Your task to perform on an android device: turn on location history Image 0: 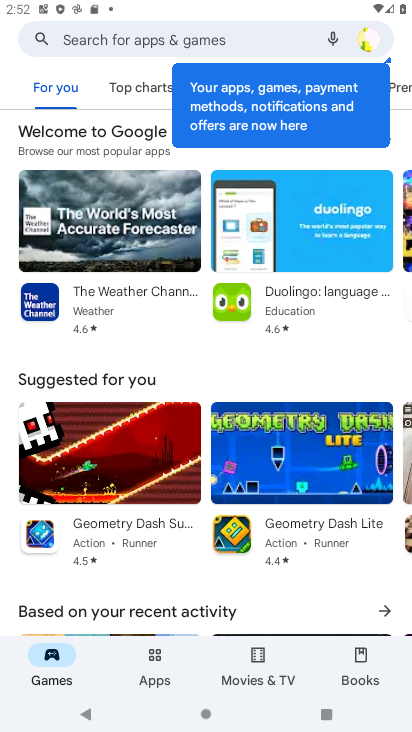
Step 0: press home button
Your task to perform on an android device: turn on location history Image 1: 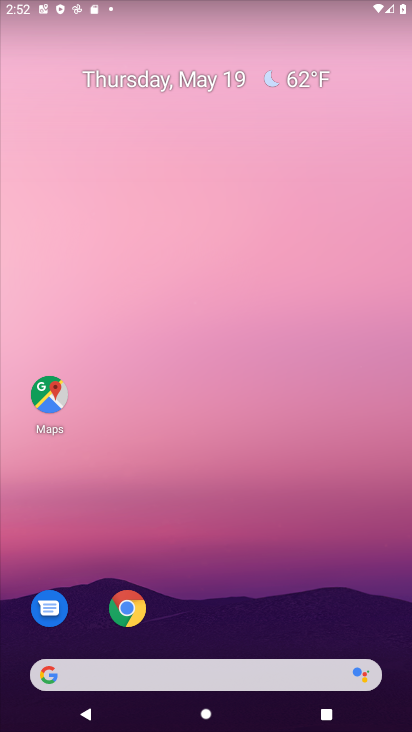
Step 1: drag from (294, 594) to (296, 50)
Your task to perform on an android device: turn on location history Image 2: 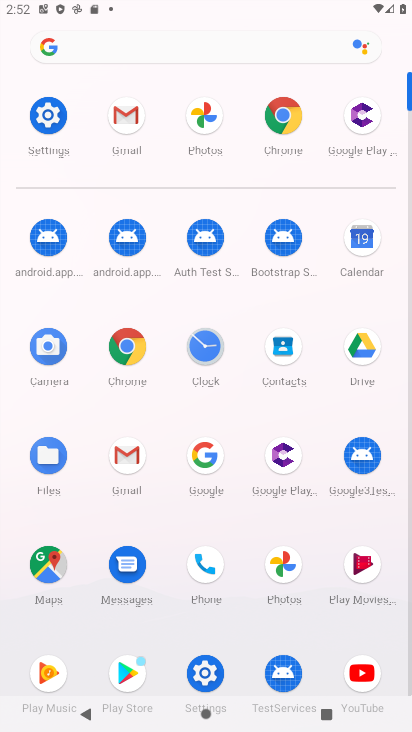
Step 2: click (31, 138)
Your task to perform on an android device: turn on location history Image 3: 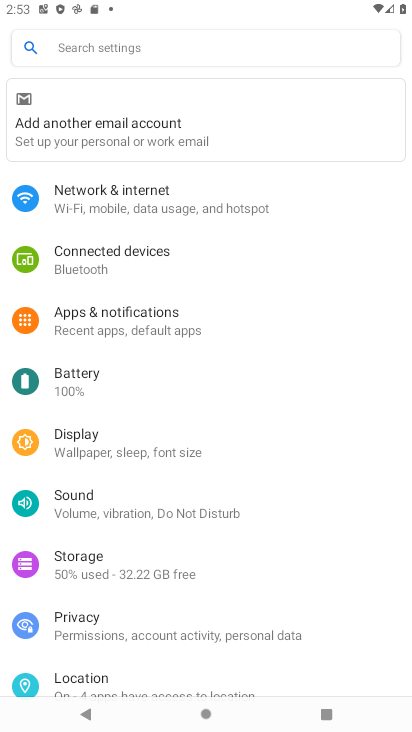
Step 3: click (188, 668)
Your task to perform on an android device: turn on location history Image 4: 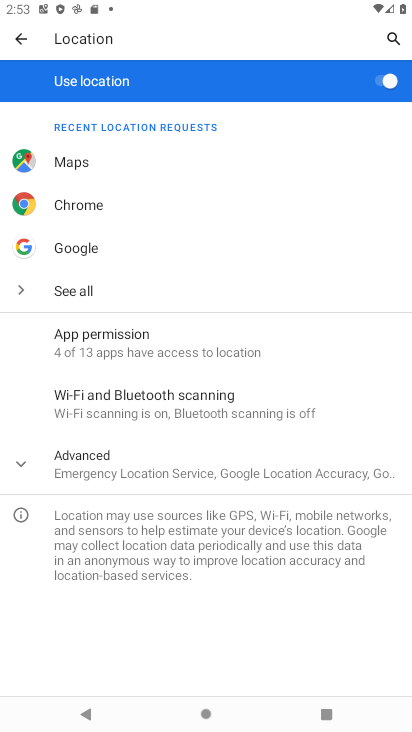
Step 4: click (242, 468)
Your task to perform on an android device: turn on location history Image 5: 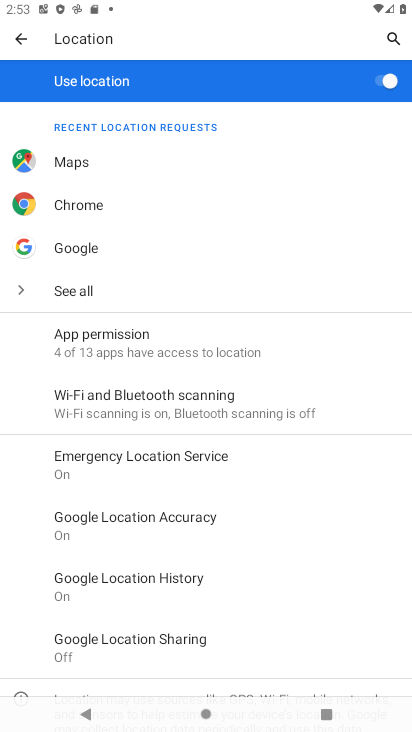
Step 5: click (185, 578)
Your task to perform on an android device: turn on location history Image 6: 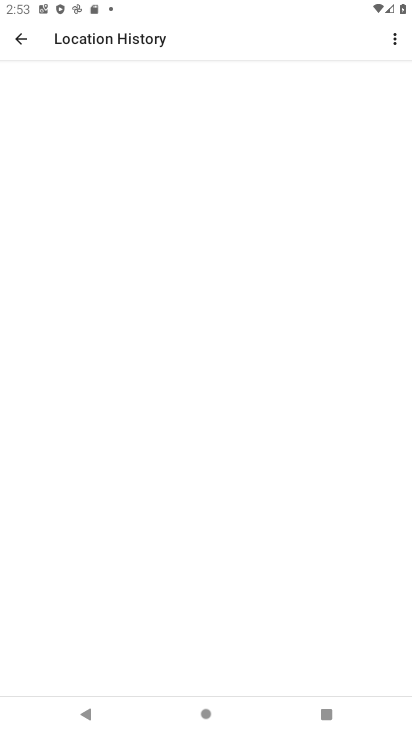
Step 6: task complete